Your task to perform on an android device: Open CNN.com Image 0: 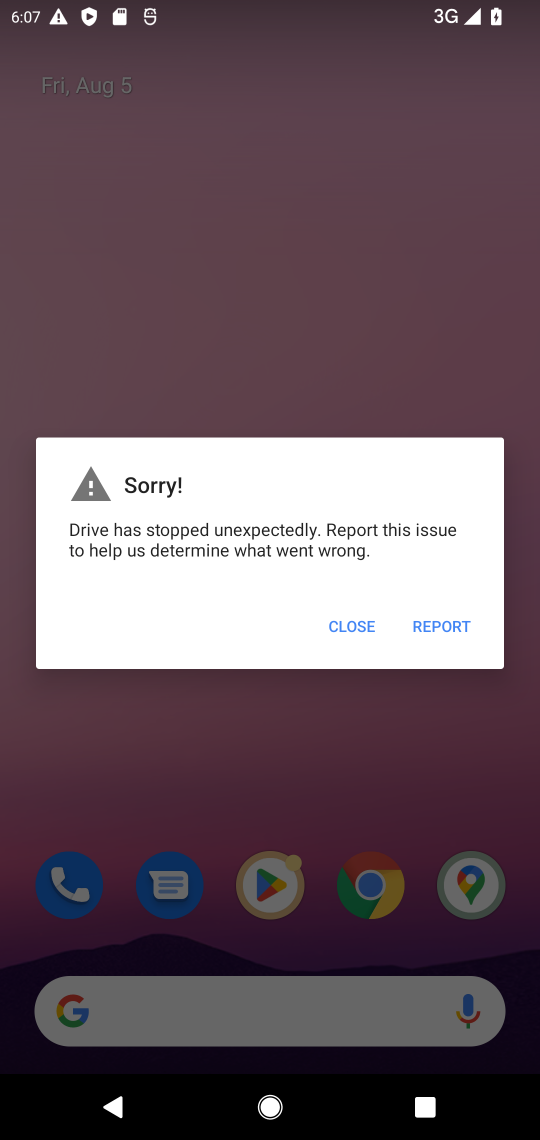
Step 0: press home button
Your task to perform on an android device: Open CNN.com Image 1: 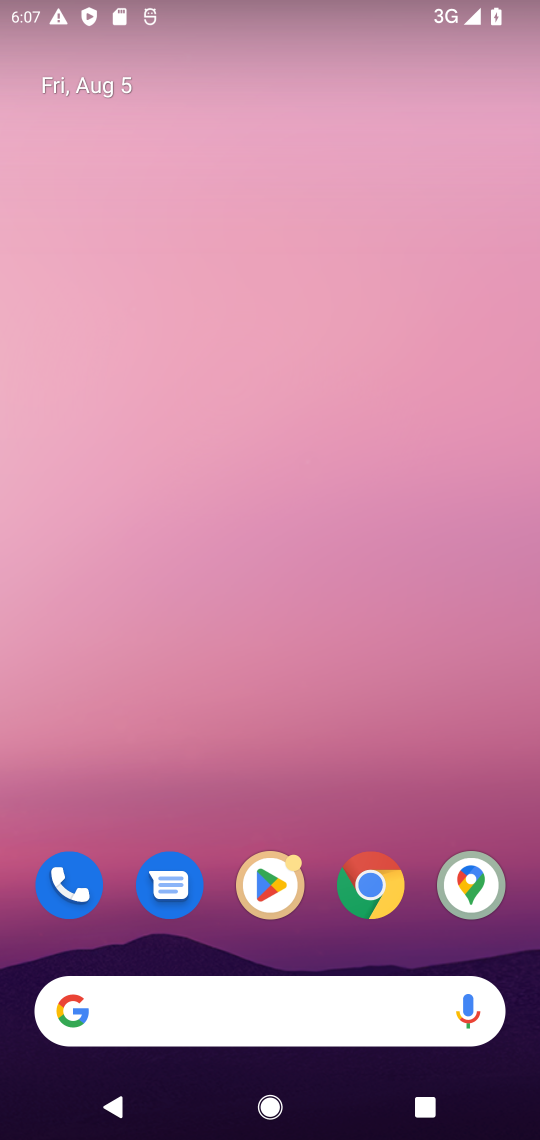
Step 1: click (342, 617)
Your task to perform on an android device: Open CNN.com Image 2: 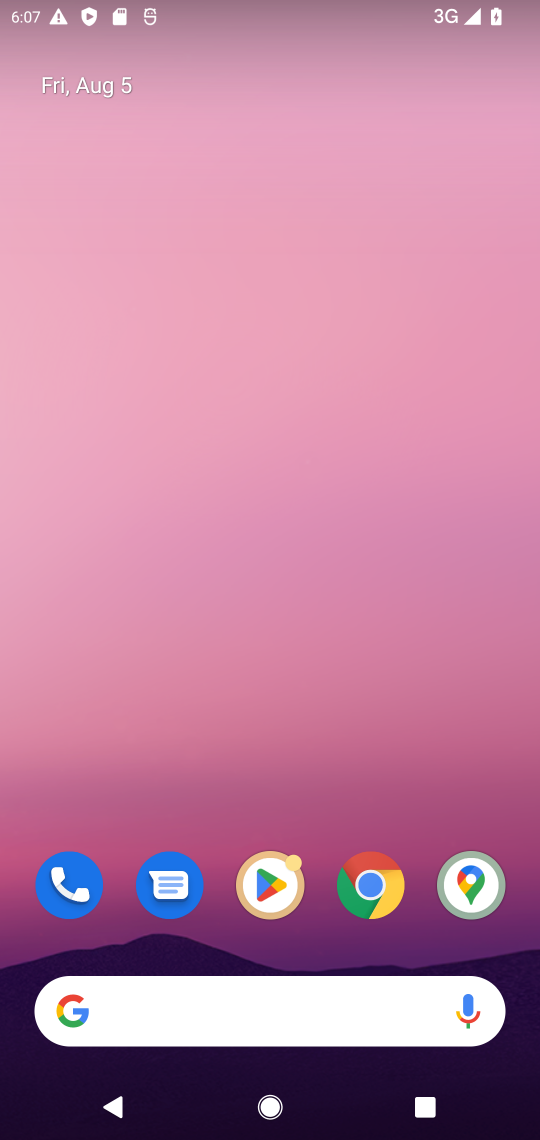
Step 2: click (356, 907)
Your task to perform on an android device: Open CNN.com Image 3: 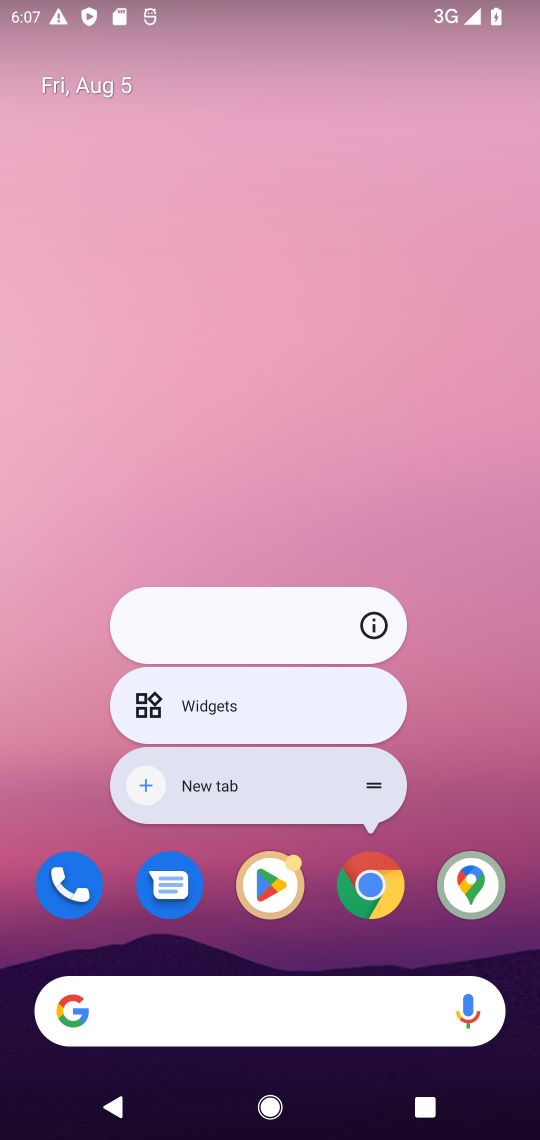
Step 3: click (384, 887)
Your task to perform on an android device: Open CNN.com Image 4: 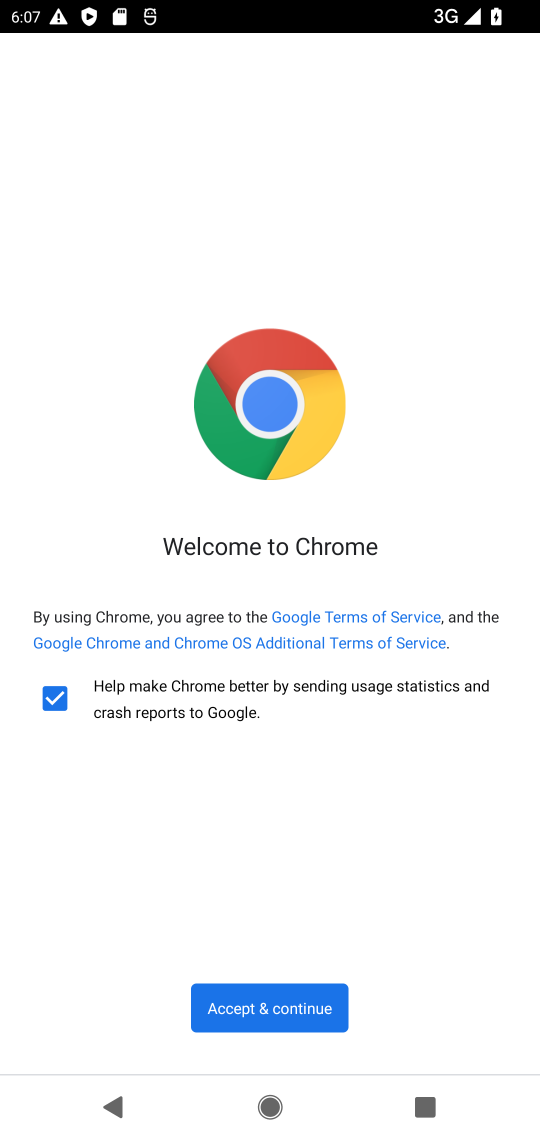
Step 4: click (267, 1012)
Your task to perform on an android device: Open CNN.com Image 5: 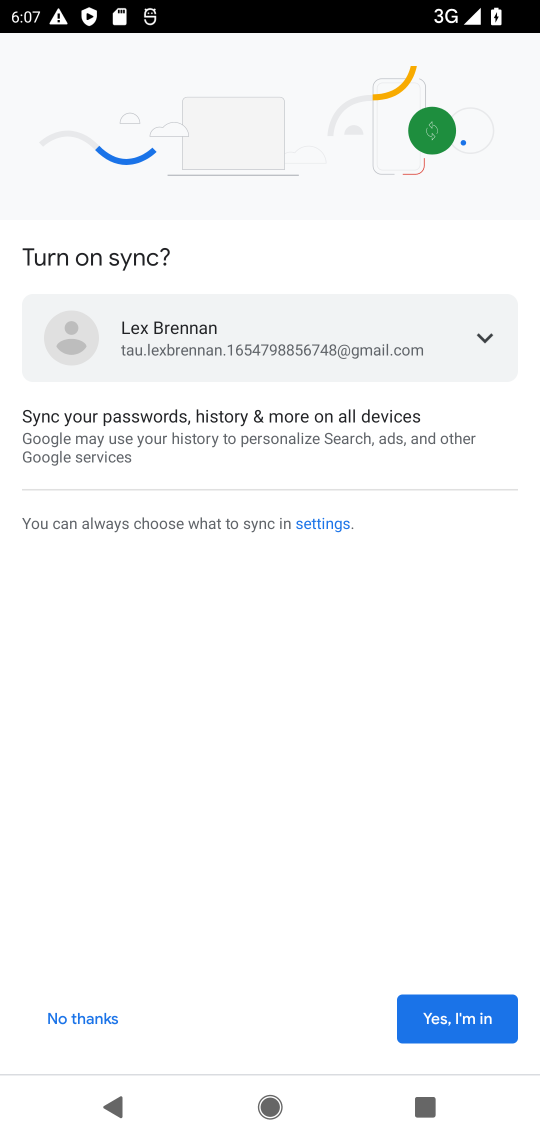
Step 5: click (446, 1024)
Your task to perform on an android device: Open CNN.com Image 6: 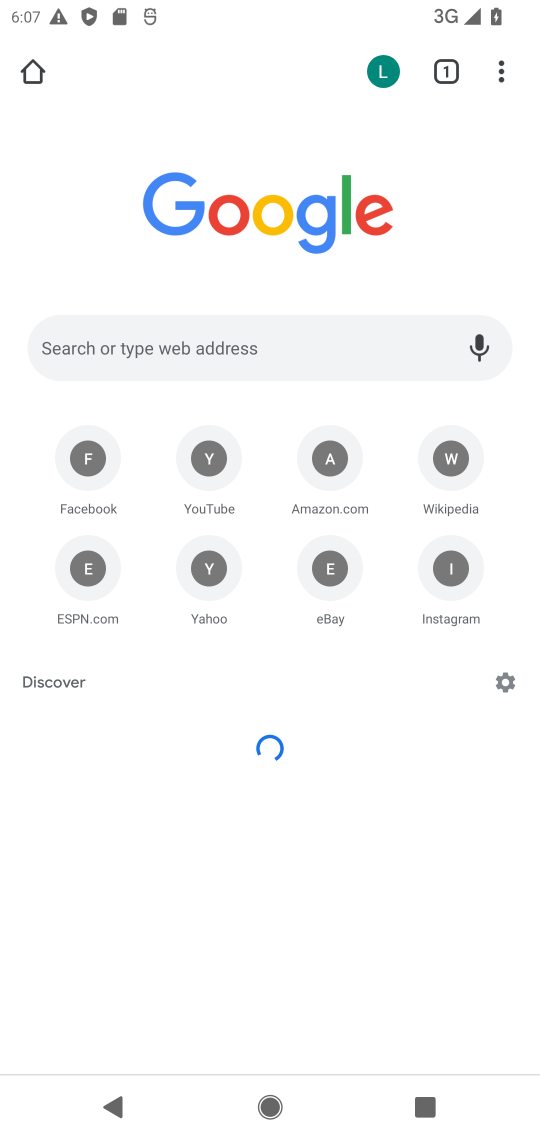
Step 6: click (245, 341)
Your task to perform on an android device: Open CNN.com Image 7: 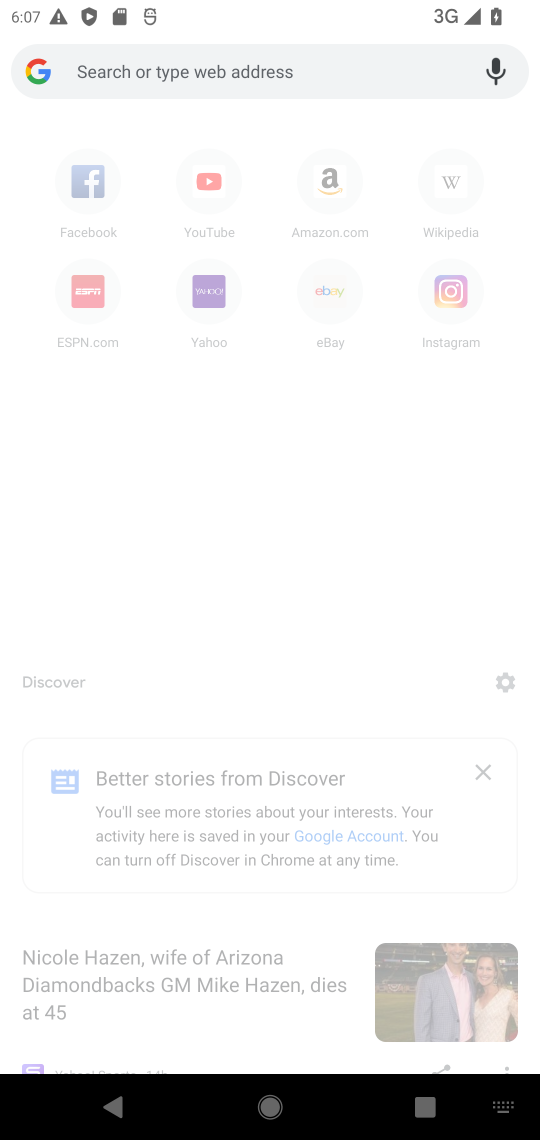
Step 7: type "CNN.com"
Your task to perform on an android device: Open CNN.com Image 8: 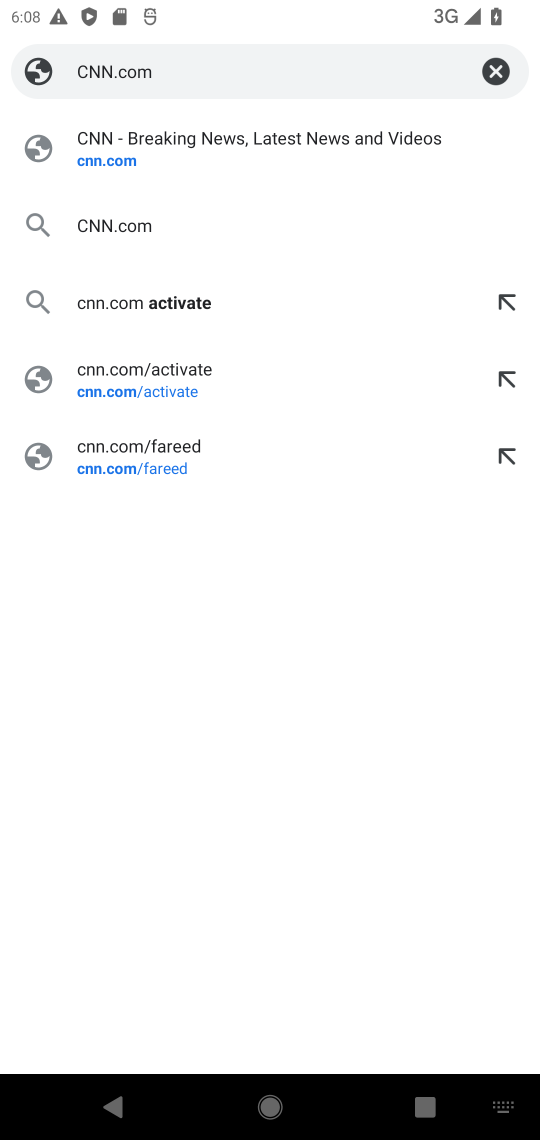
Step 8: click (117, 168)
Your task to perform on an android device: Open CNN.com Image 9: 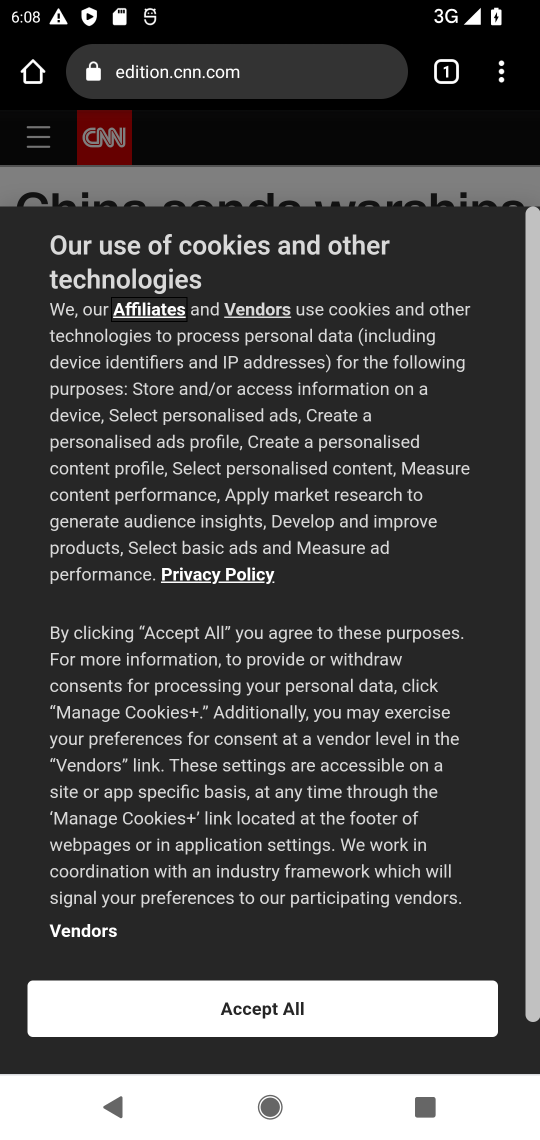
Step 9: task complete